Your task to perform on an android device: Go to Maps Image 0: 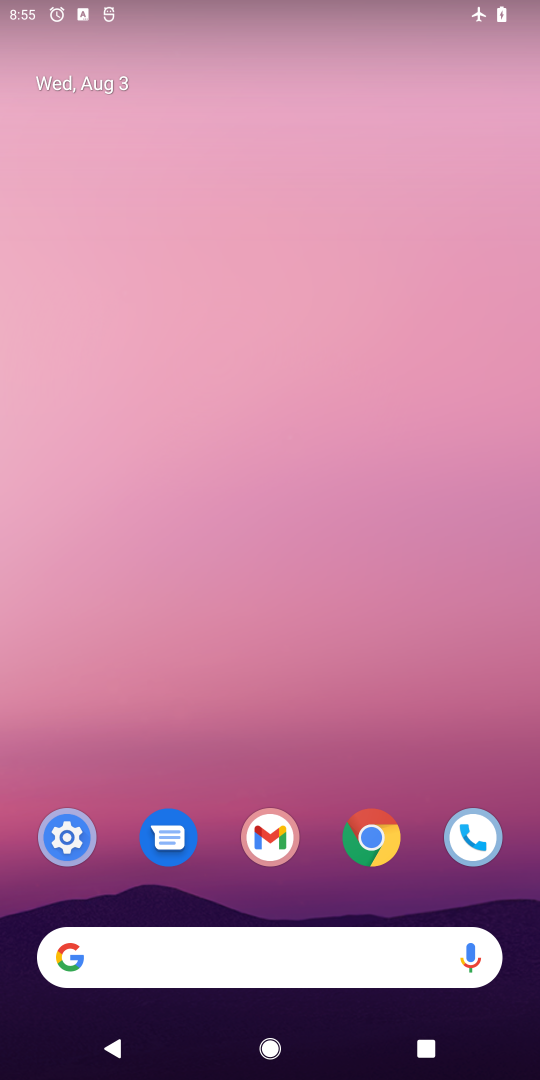
Step 0: drag from (308, 893) to (388, 216)
Your task to perform on an android device: Go to Maps Image 1: 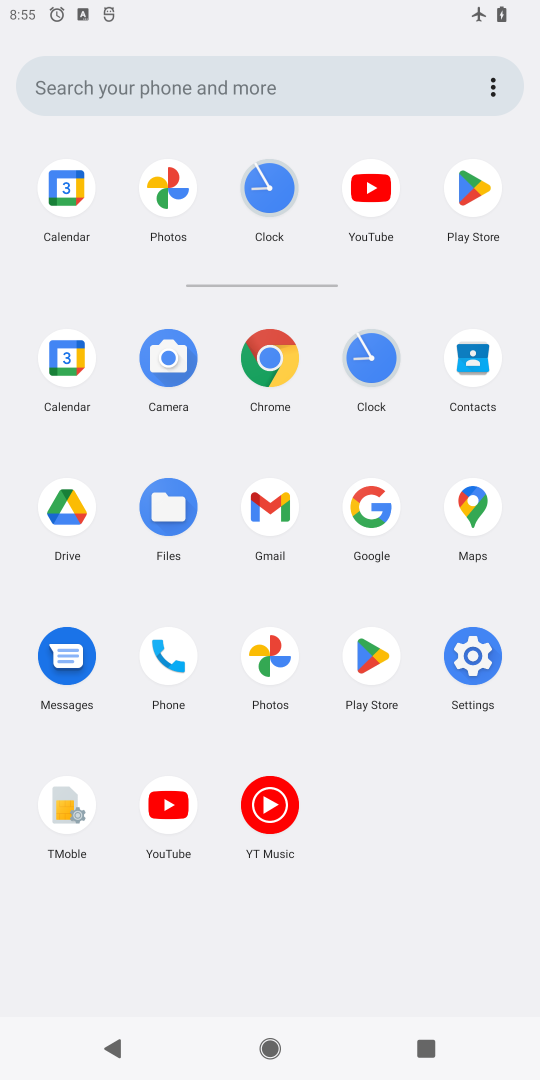
Step 1: click (474, 511)
Your task to perform on an android device: Go to Maps Image 2: 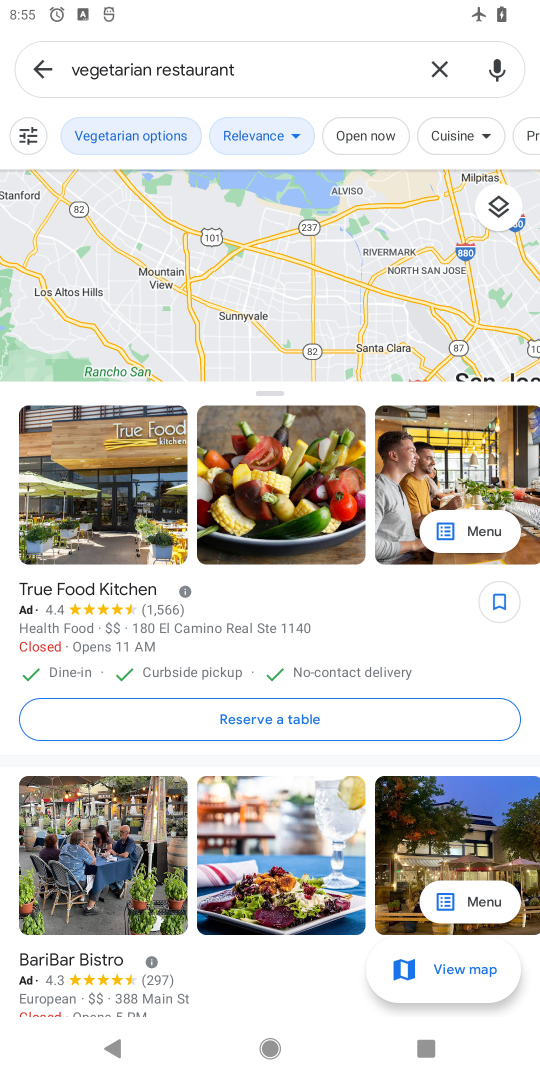
Step 2: click (39, 56)
Your task to perform on an android device: Go to Maps Image 3: 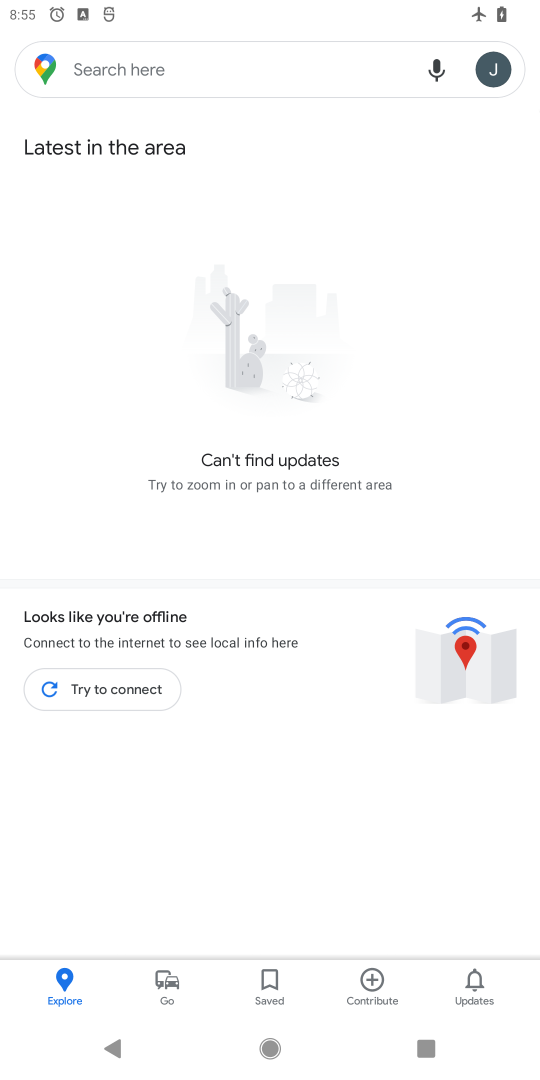
Step 3: click (102, 691)
Your task to perform on an android device: Go to Maps Image 4: 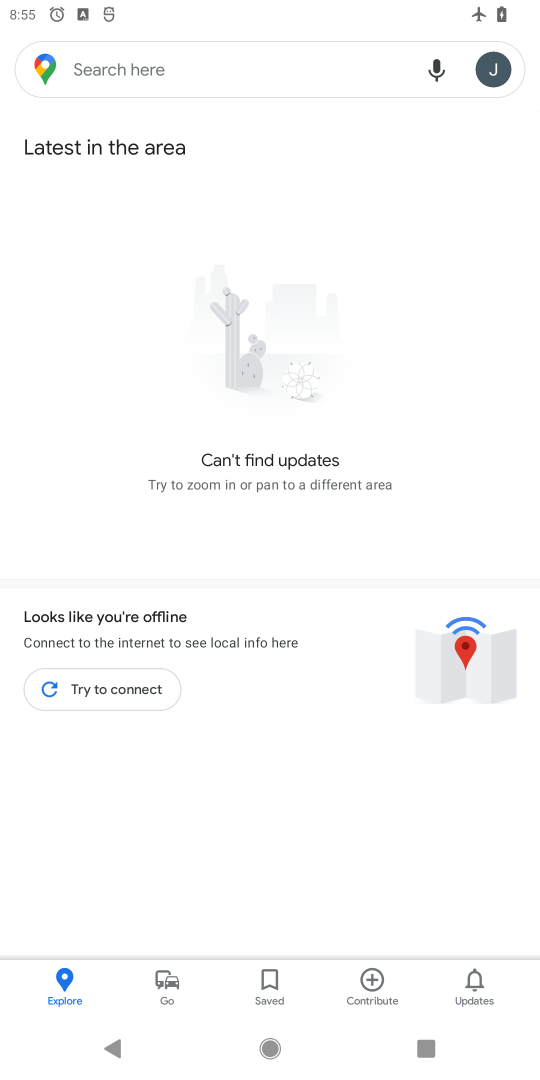
Step 4: click (491, 604)
Your task to perform on an android device: Go to Maps Image 5: 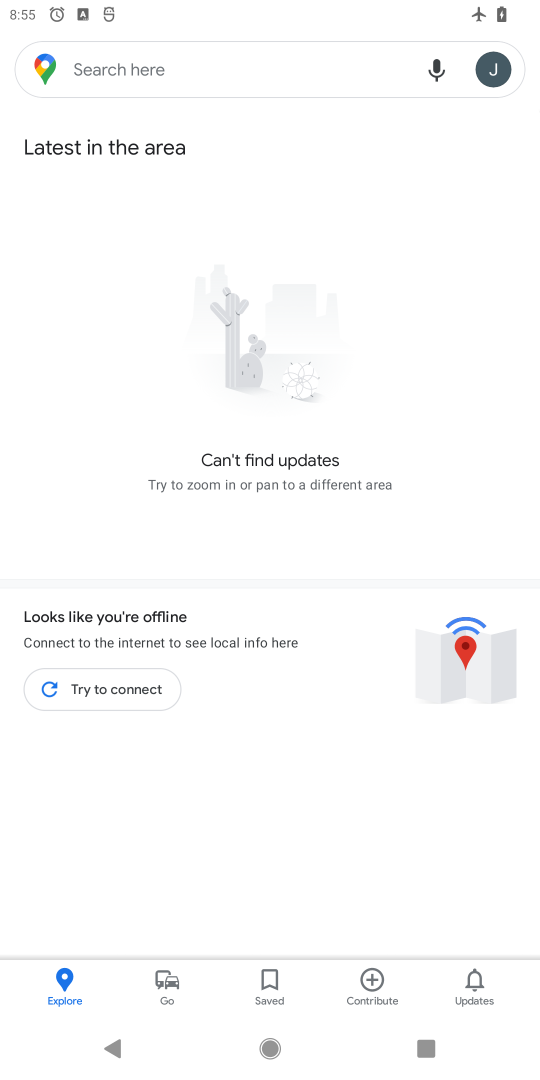
Step 5: click (477, 621)
Your task to perform on an android device: Go to Maps Image 6: 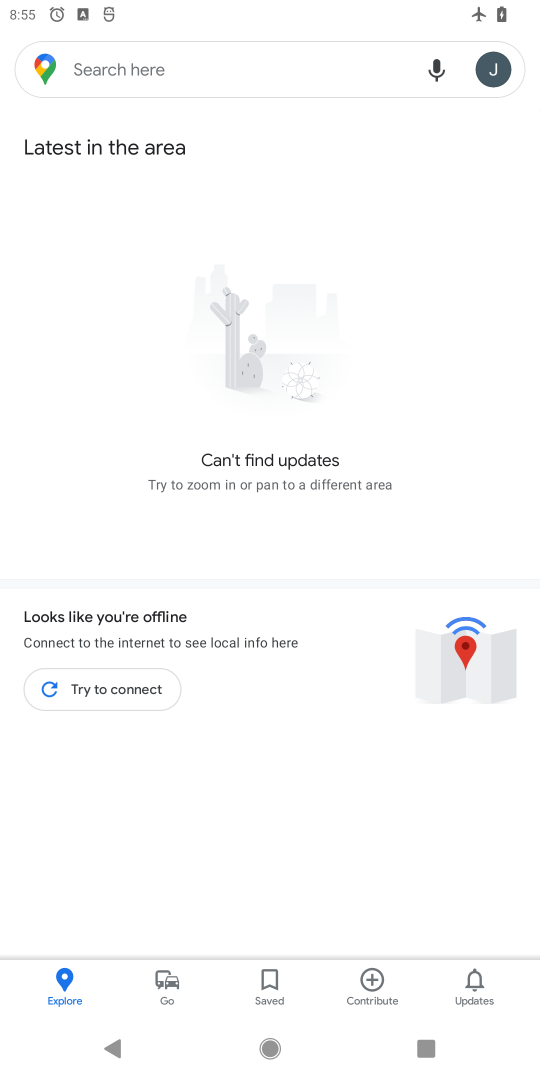
Step 6: drag from (183, 6) to (45, 559)
Your task to perform on an android device: Go to Maps Image 7: 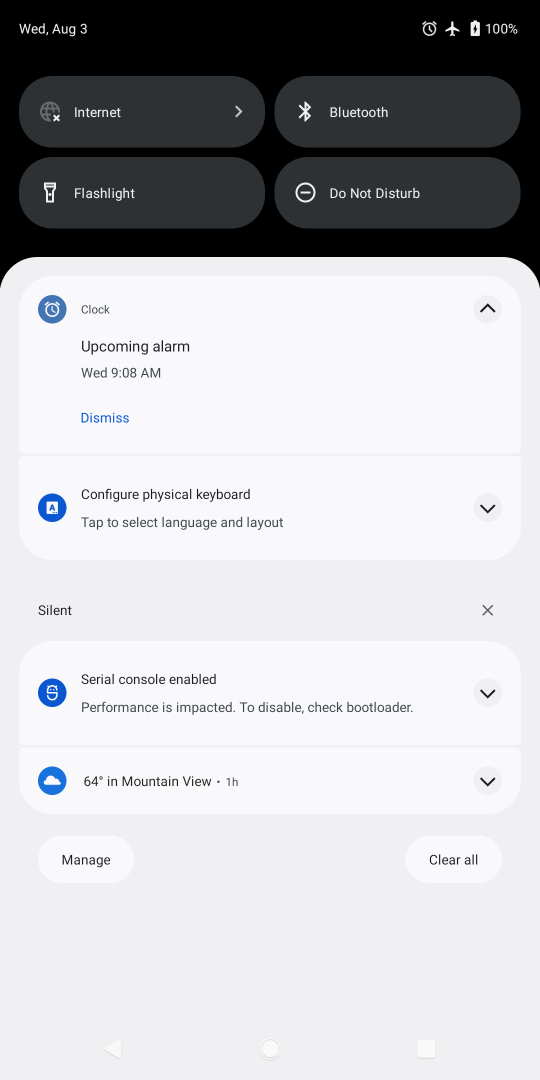
Step 7: click (90, 104)
Your task to perform on an android device: Go to Maps Image 8: 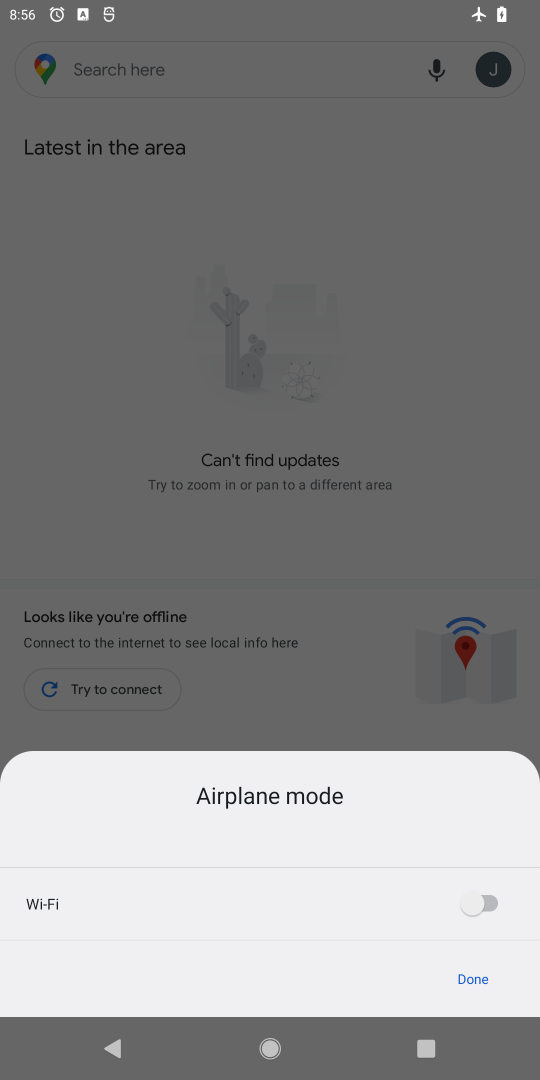
Step 8: click (487, 908)
Your task to perform on an android device: Go to Maps Image 9: 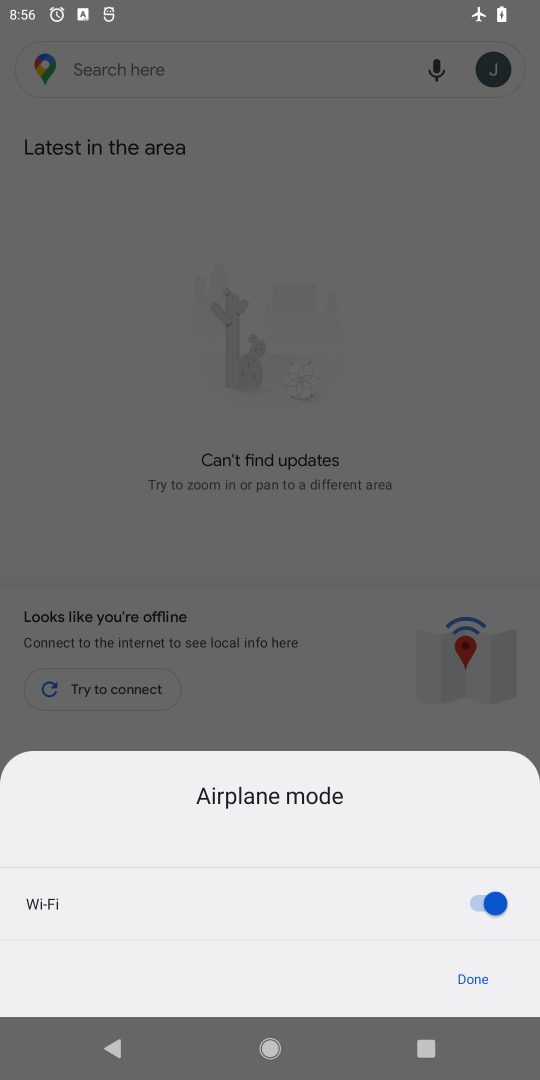
Step 9: click (465, 989)
Your task to perform on an android device: Go to Maps Image 10: 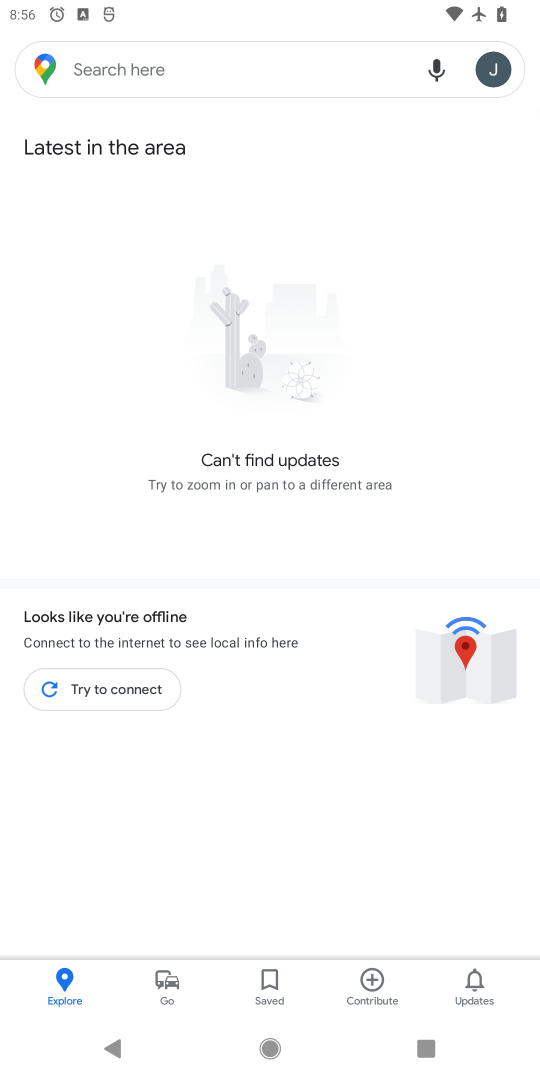
Step 10: click (109, 685)
Your task to perform on an android device: Go to Maps Image 11: 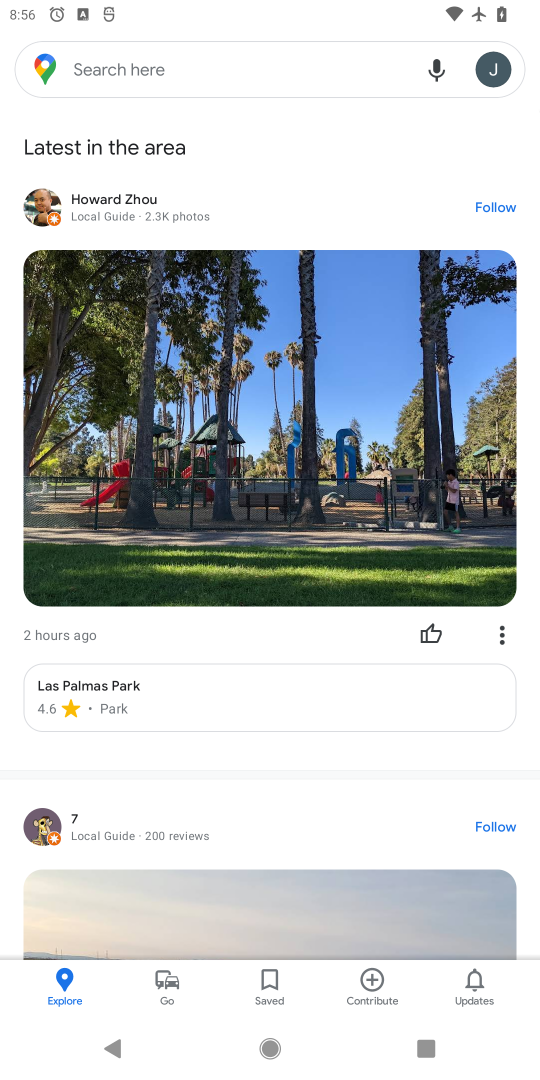
Step 11: click (135, 1038)
Your task to perform on an android device: Go to Maps Image 12: 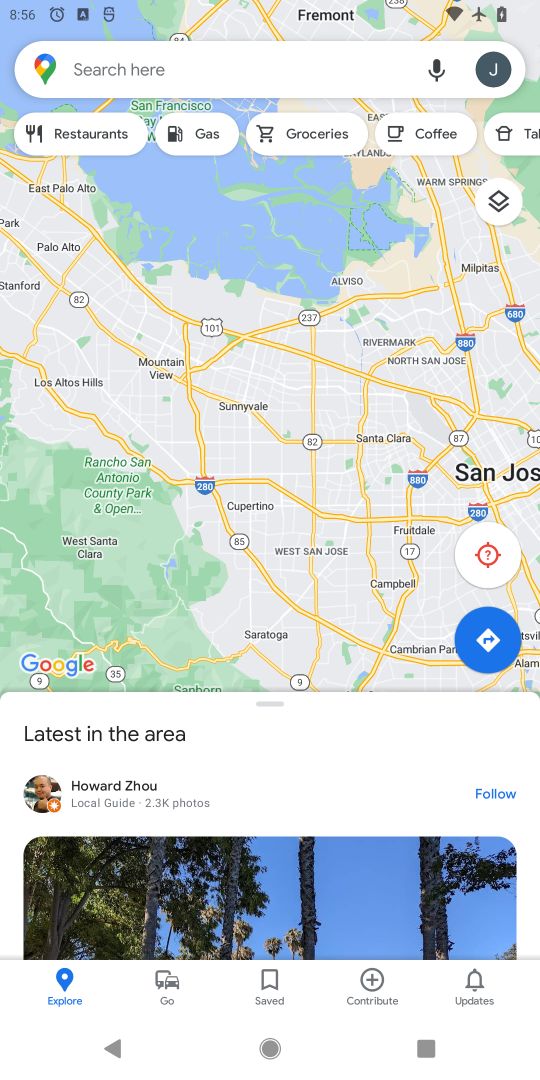
Step 12: task complete